Your task to perform on an android device: Go to notification settings Image 0: 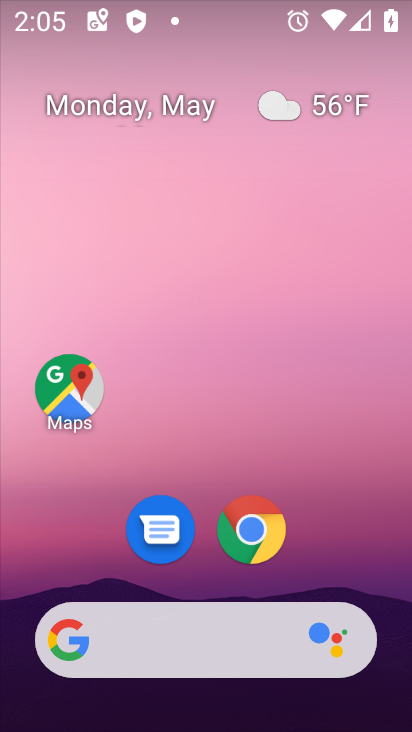
Step 0: drag from (331, 563) to (409, 190)
Your task to perform on an android device: Go to notification settings Image 1: 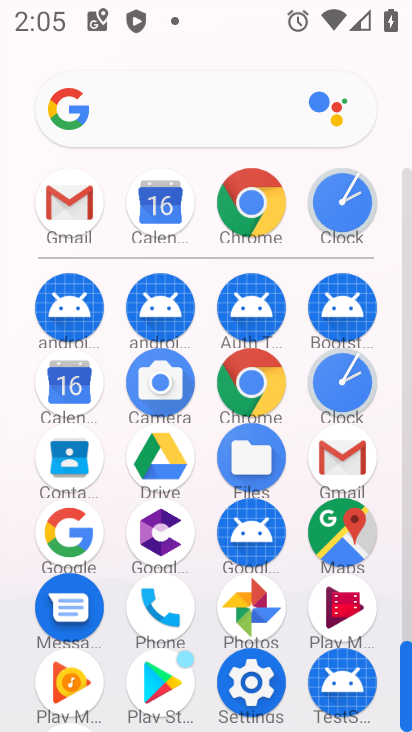
Step 1: click (231, 687)
Your task to perform on an android device: Go to notification settings Image 2: 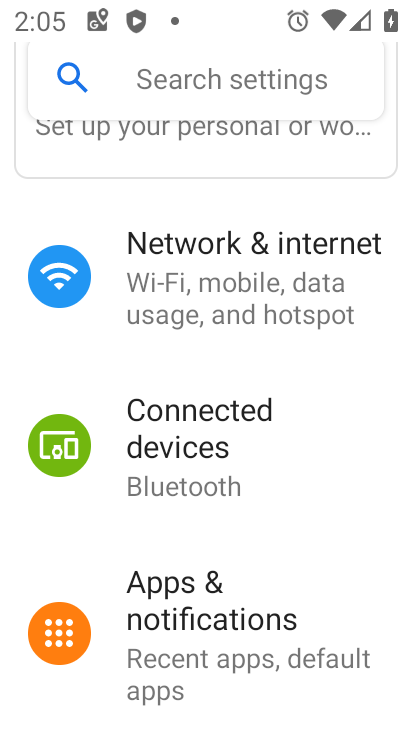
Step 2: click (228, 617)
Your task to perform on an android device: Go to notification settings Image 3: 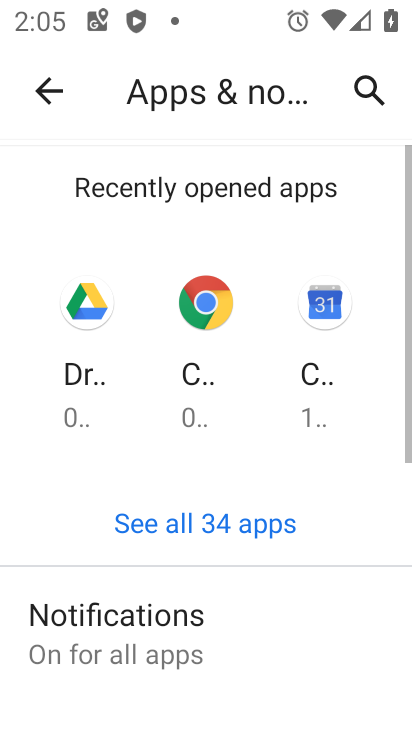
Step 3: click (215, 605)
Your task to perform on an android device: Go to notification settings Image 4: 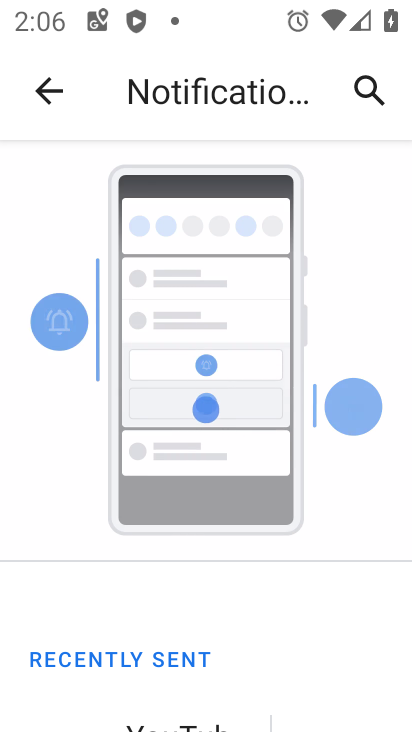
Step 4: task complete